Your task to perform on an android device: snooze an email in the gmail app Image 0: 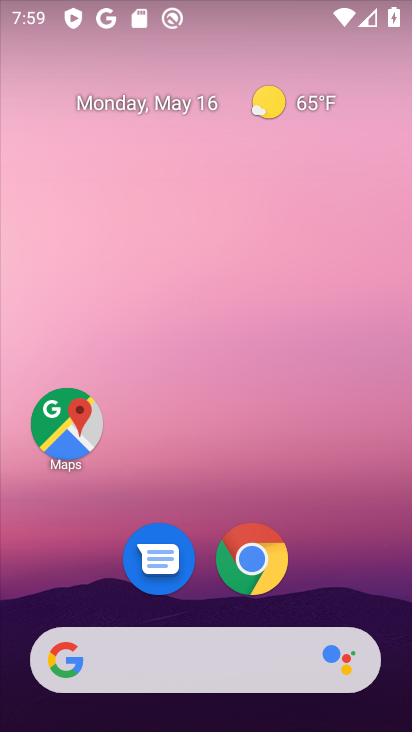
Step 0: drag from (213, 558) to (273, 11)
Your task to perform on an android device: snooze an email in the gmail app Image 1: 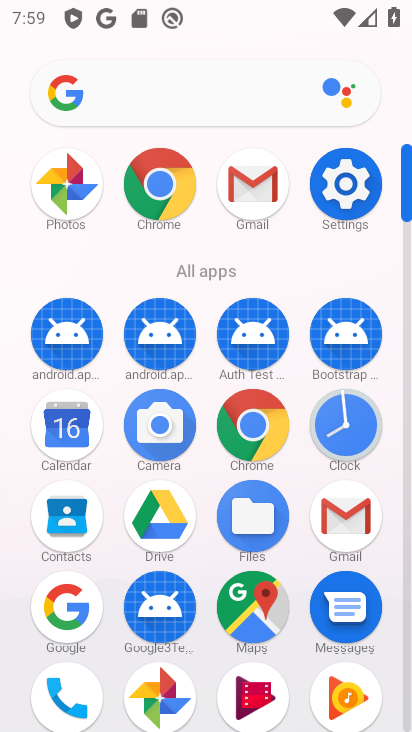
Step 1: click (244, 183)
Your task to perform on an android device: snooze an email in the gmail app Image 2: 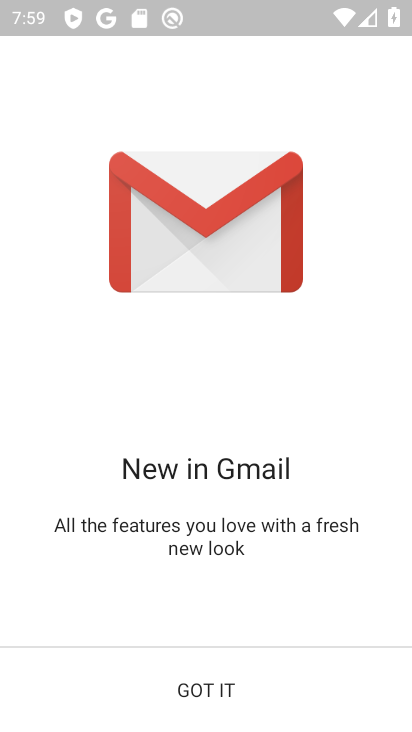
Step 2: click (267, 684)
Your task to perform on an android device: snooze an email in the gmail app Image 3: 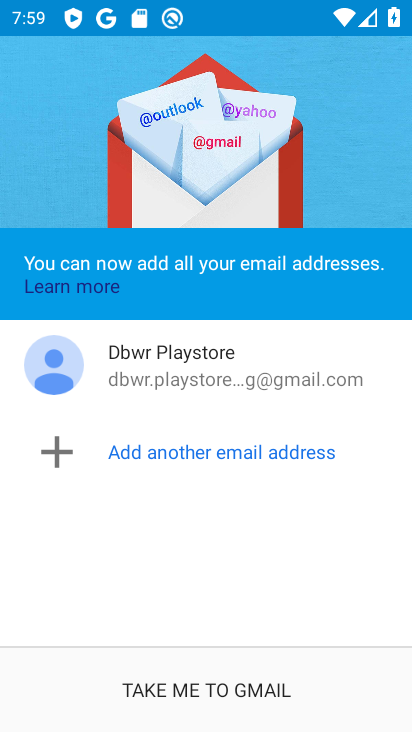
Step 3: click (213, 686)
Your task to perform on an android device: snooze an email in the gmail app Image 4: 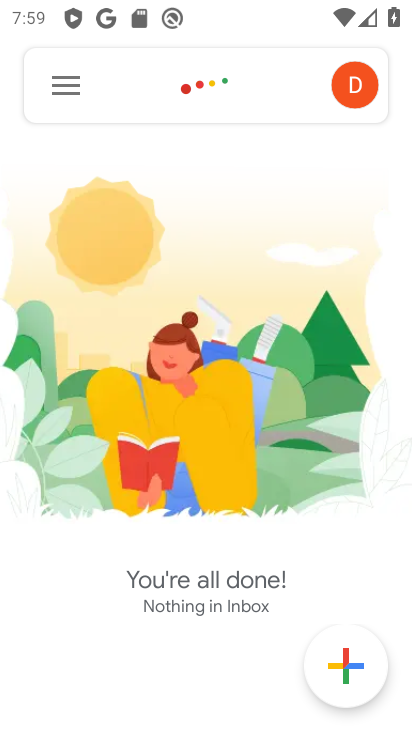
Step 4: click (63, 84)
Your task to perform on an android device: snooze an email in the gmail app Image 5: 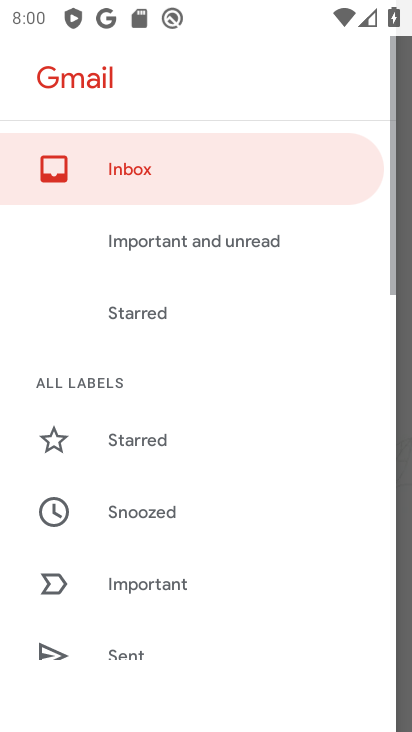
Step 5: click (189, 504)
Your task to perform on an android device: snooze an email in the gmail app Image 6: 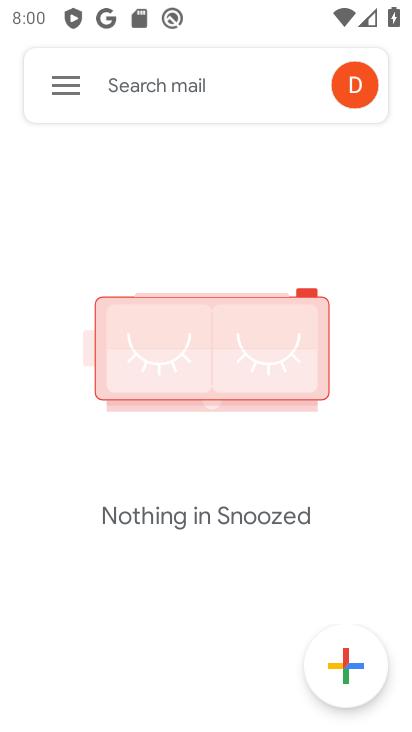
Step 6: click (60, 86)
Your task to perform on an android device: snooze an email in the gmail app Image 7: 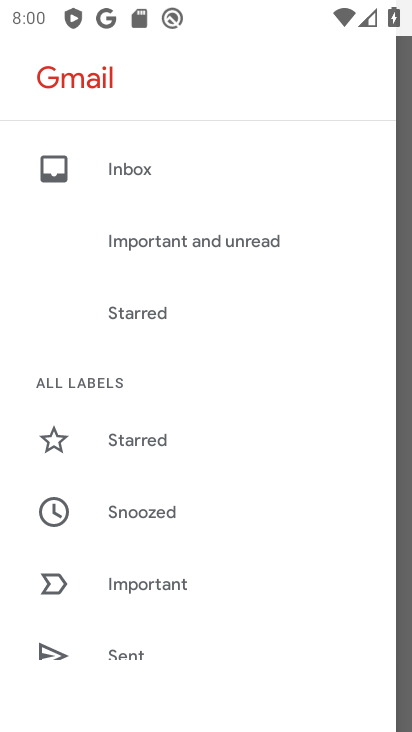
Step 7: drag from (132, 616) to (251, 198)
Your task to perform on an android device: snooze an email in the gmail app Image 8: 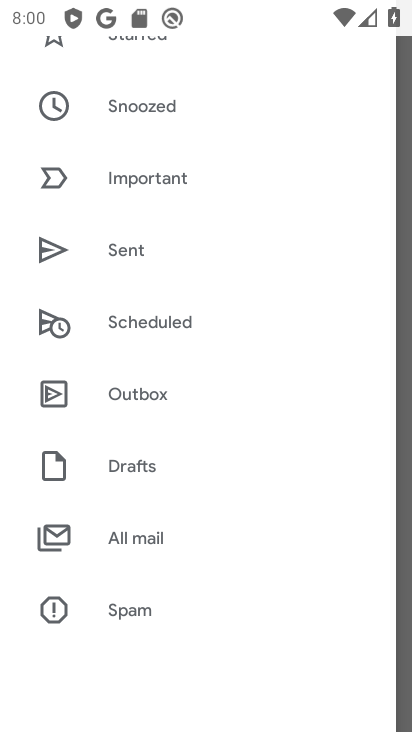
Step 8: click (184, 537)
Your task to perform on an android device: snooze an email in the gmail app Image 9: 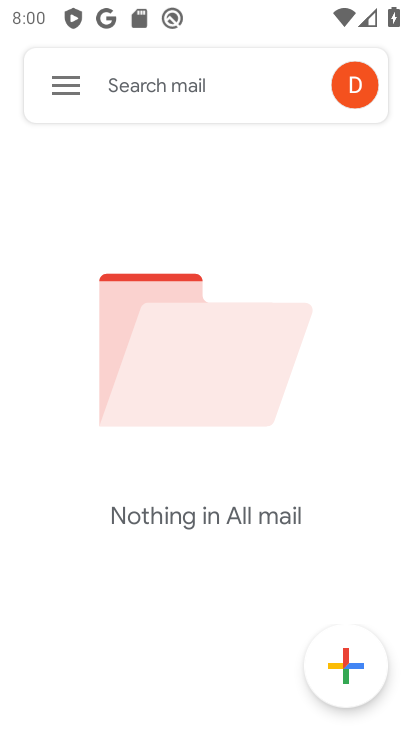
Step 9: task complete